Your task to perform on an android device: Go to privacy settings Image 0: 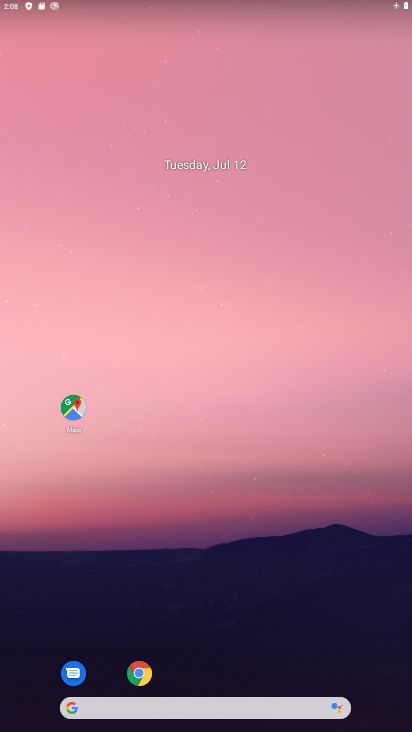
Step 0: drag from (207, 668) to (234, 182)
Your task to perform on an android device: Go to privacy settings Image 1: 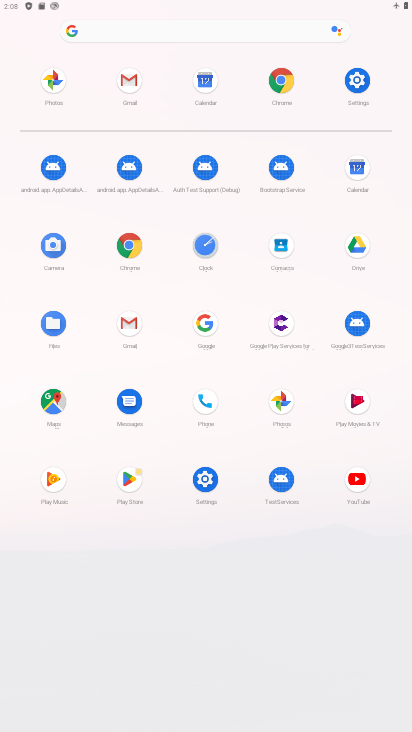
Step 1: click (358, 84)
Your task to perform on an android device: Go to privacy settings Image 2: 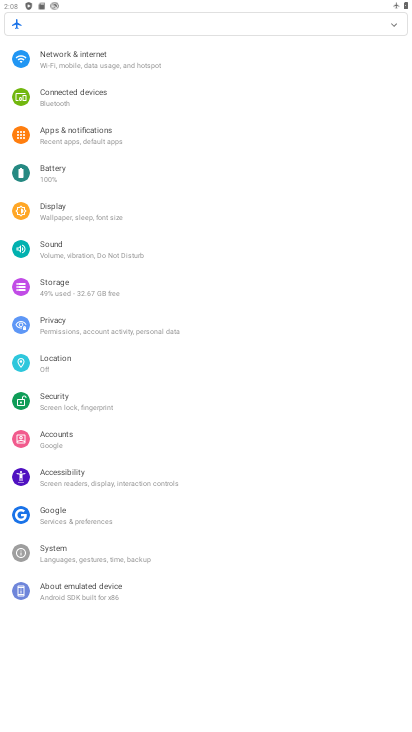
Step 2: click (84, 323)
Your task to perform on an android device: Go to privacy settings Image 3: 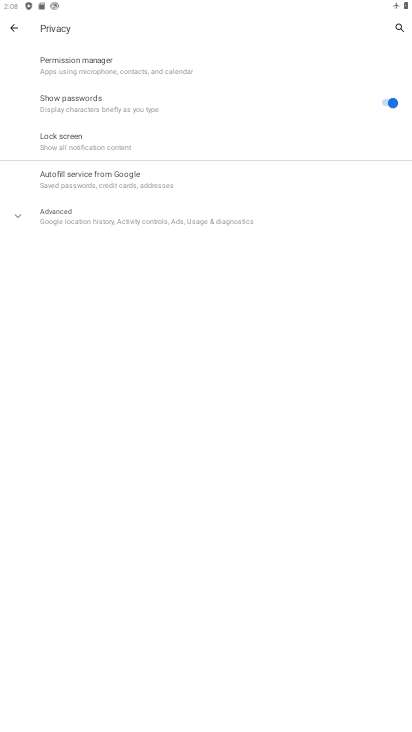
Step 3: task complete